Your task to perform on an android device: What's the weather going to be tomorrow? Image 0: 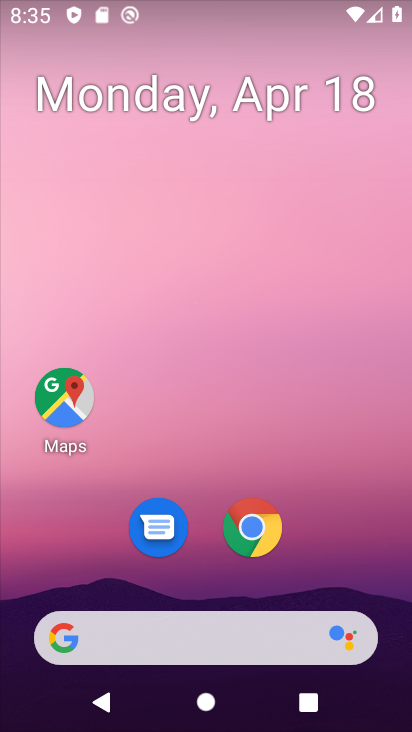
Step 0: drag from (328, 536) to (326, 104)
Your task to perform on an android device: What's the weather going to be tomorrow? Image 1: 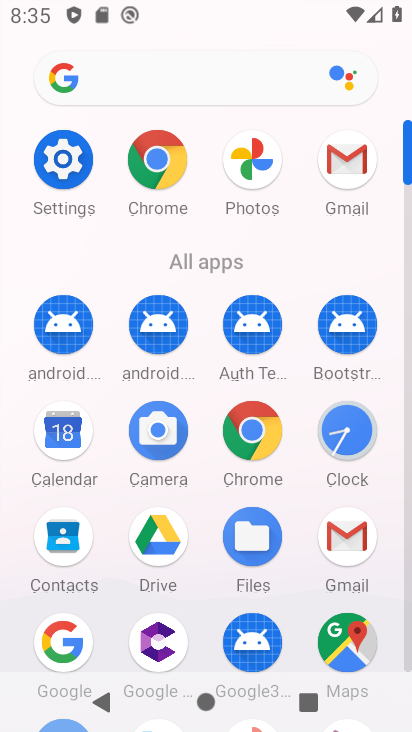
Step 1: click (252, 433)
Your task to perform on an android device: What's the weather going to be tomorrow? Image 2: 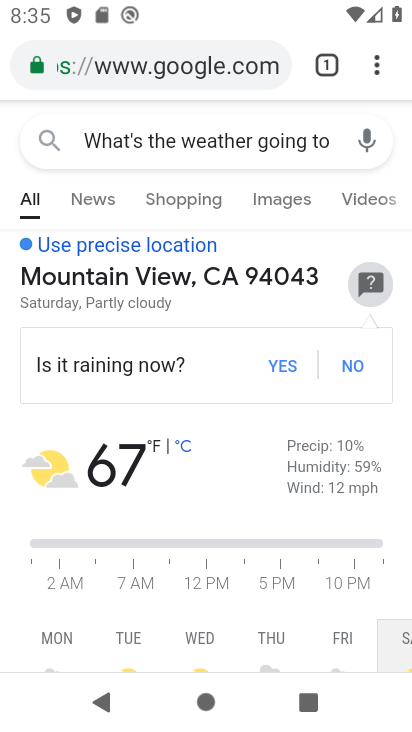
Step 2: drag from (332, 140) to (108, 132)
Your task to perform on an android device: What's the weather going to be tomorrow? Image 3: 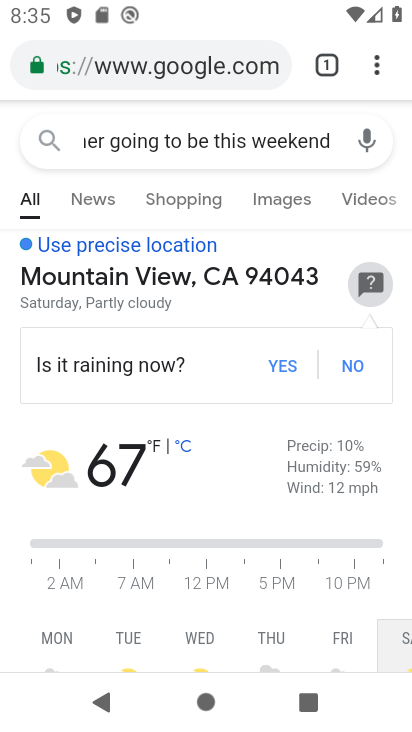
Step 3: click (336, 135)
Your task to perform on an android device: What's the weather going to be tomorrow? Image 4: 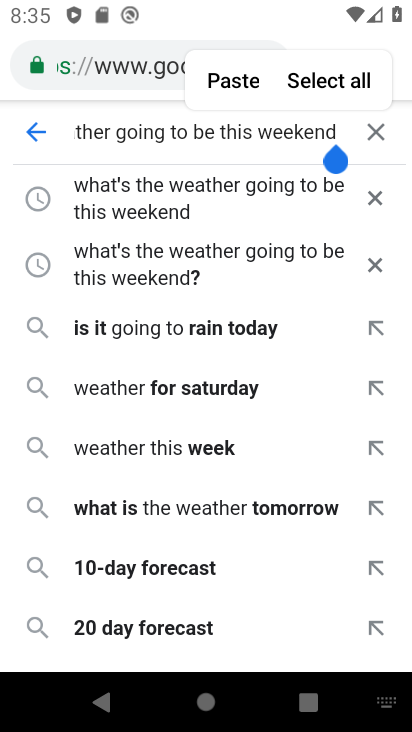
Step 4: click (372, 129)
Your task to perform on an android device: What's the weather going to be tomorrow? Image 5: 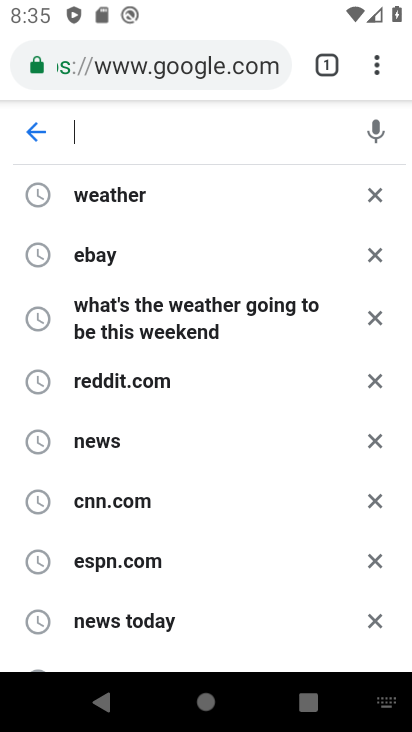
Step 5: type "What's the weather going to be tomorrow"
Your task to perform on an android device: What's the weather going to be tomorrow? Image 6: 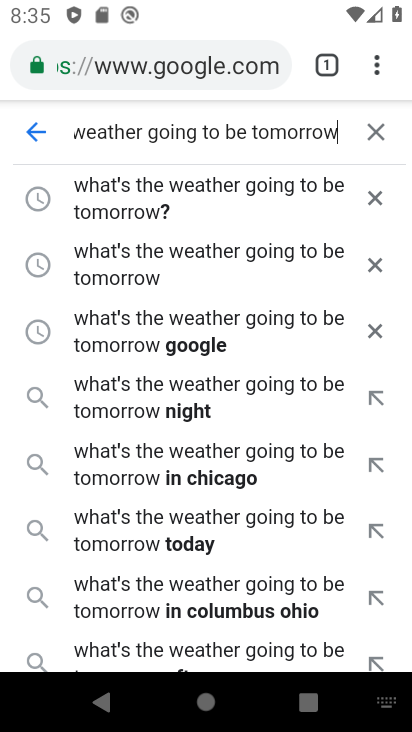
Step 6: click (117, 200)
Your task to perform on an android device: What's the weather going to be tomorrow? Image 7: 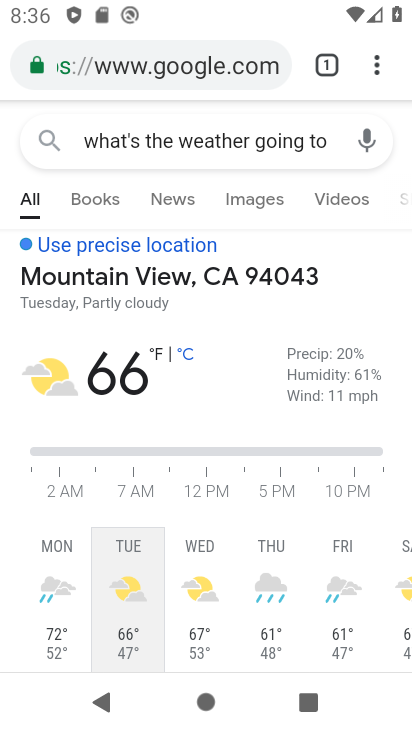
Step 7: task complete